Your task to perform on an android device: open a bookmark in the chrome app Image 0: 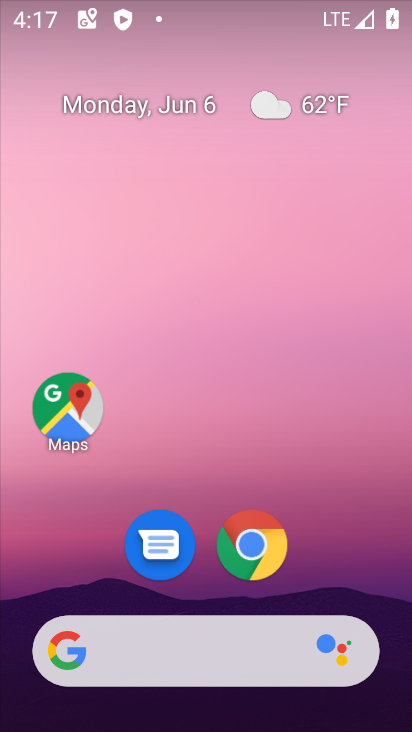
Step 0: click (257, 540)
Your task to perform on an android device: open a bookmark in the chrome app Image 1: 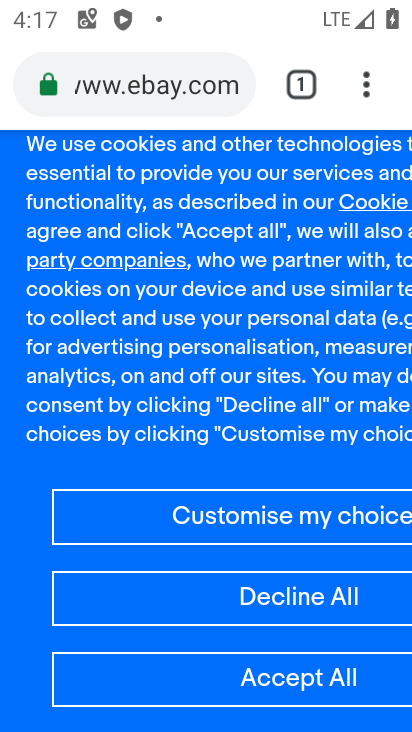
Step 1: click (365, 92)
Your task to perform on an android device: open a bookmark in the chrome app Image 2: 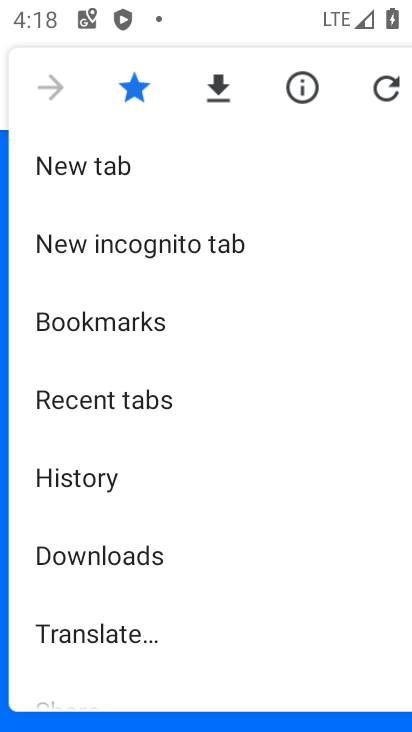
Step 2: click (123, 324)
Your task to perform on an android device: open a bookmark in the chrome app Image 3: 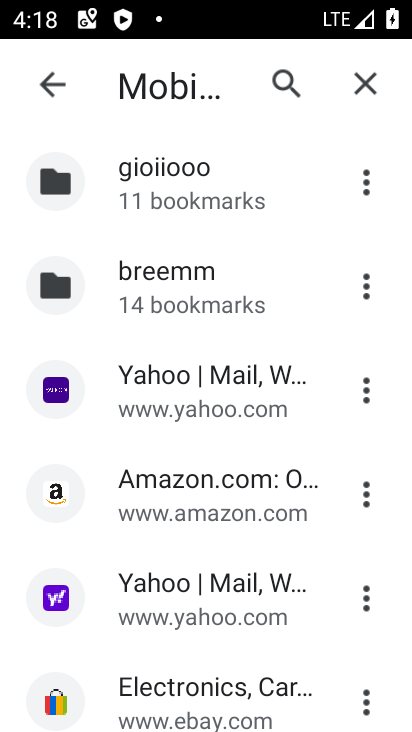
Step 3: task complete